Your task to perform on an android device: What's the weather going to be this weekend? Image 0: 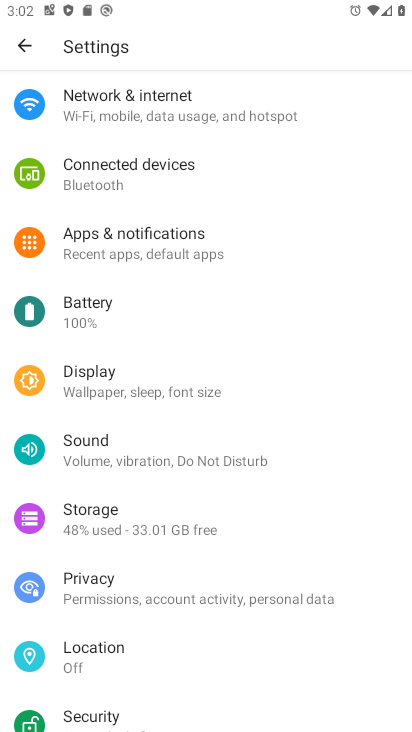
Step 0: press home button
Your task to perform on an android device: What's the weather going to be this weekend? Image 1: 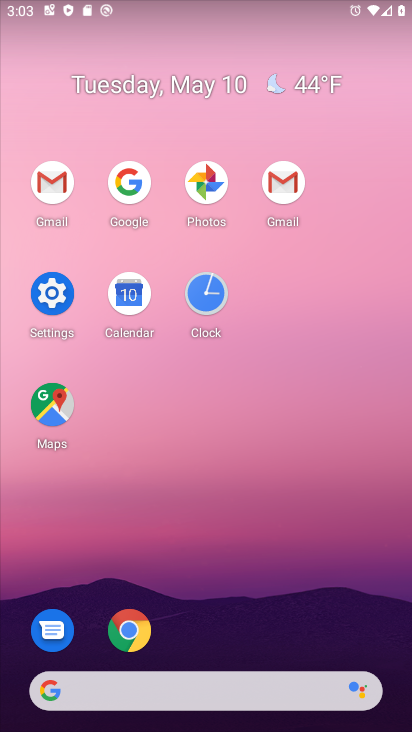
Step 1: click (128, 178)
Your task to perform on an android device: What's the weather going to be this weekend? Image 2: 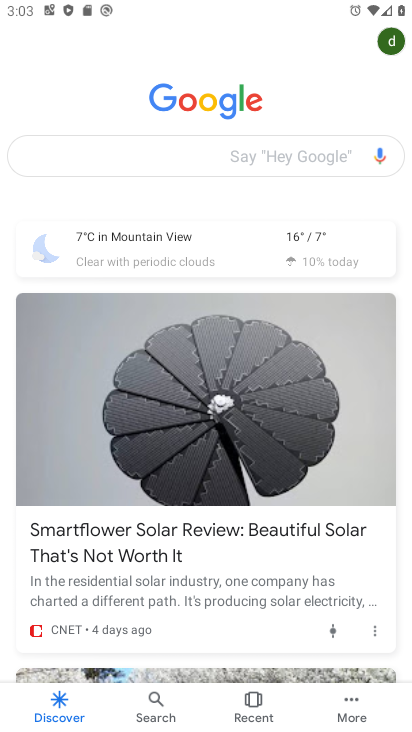
Step 2: click (115, 236)
Your task to perform on an android device: What's the weather going to be this weekend? Image 3: 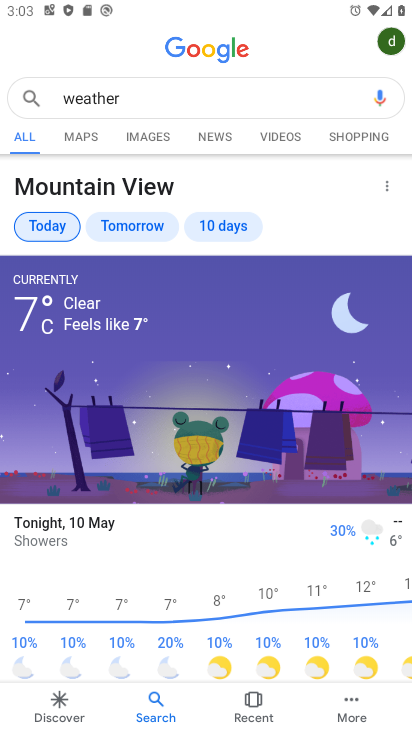
Step 3: task complete